Your task to perform on an android device: toggle priority inbox in the gmail app Image 0: 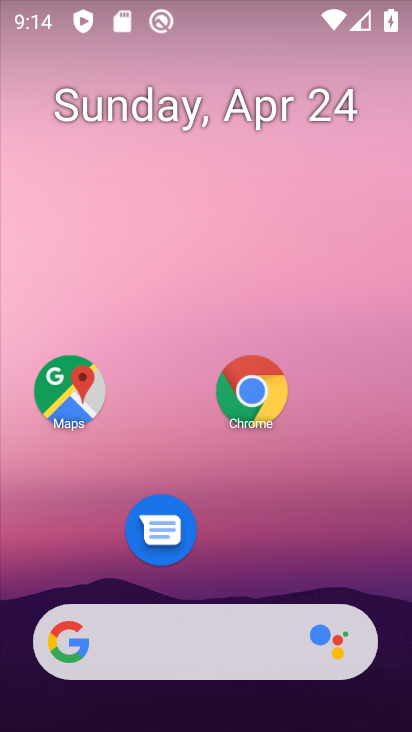
Step 0: drag from (256, 551) to (299, 33)
Your task to perform on an android device: toggle priority inbox in the gmail app Image 1: 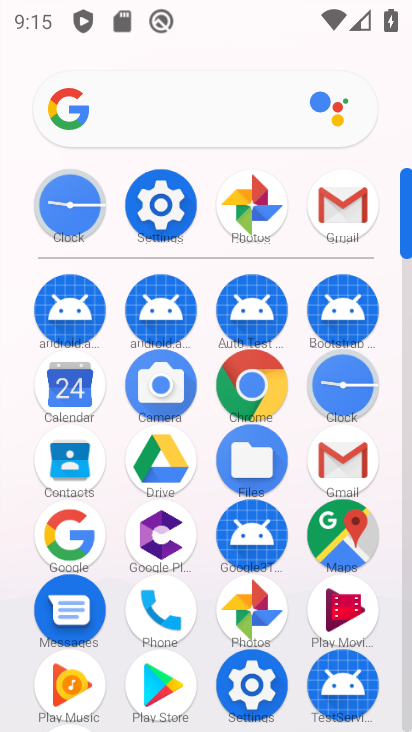
Step 1: click (342, 476)
Your task to perform on an android device: toggle priority inbox in the gmail app Image 2: 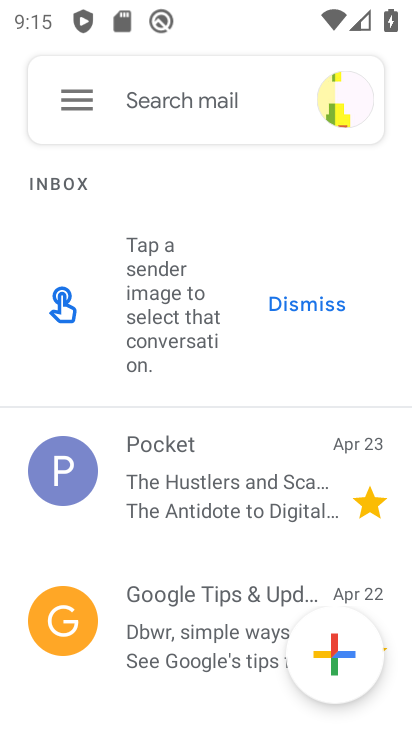
Step 2: drag from (168, 575) to (219, 234)
Your task to perform on an android device: toggle priority inbox in the gmail app Image 3: 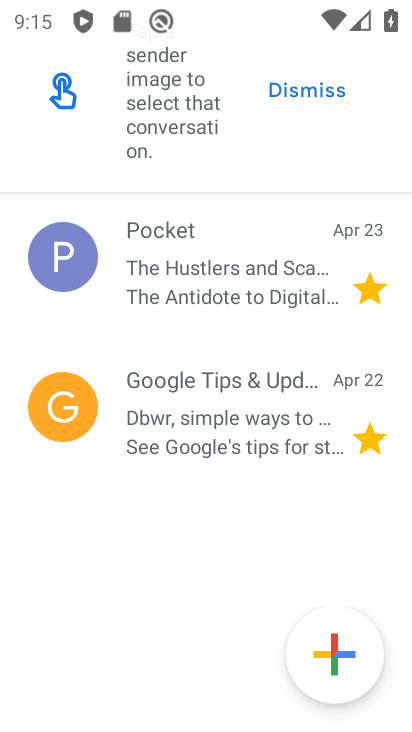
Step 3: drag from (219, 234) to (268, 625)
Your task to perform on an android device: toggle priority inbox in the gmail app Image 4: 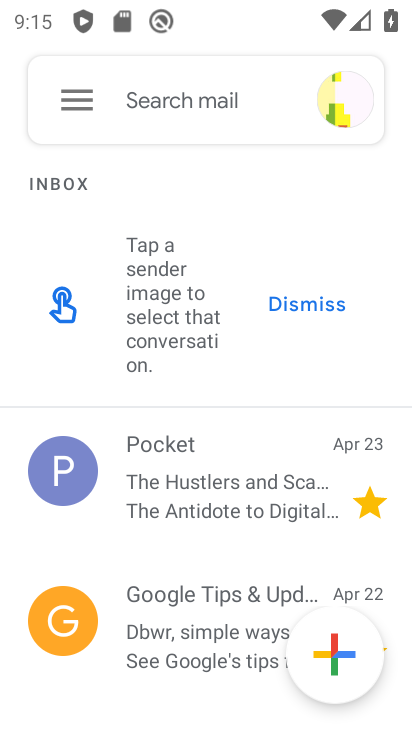
Step 4: click (73, 89)
Your task to perform on an android device: toggle priority inbox in the gmail app Image 5: 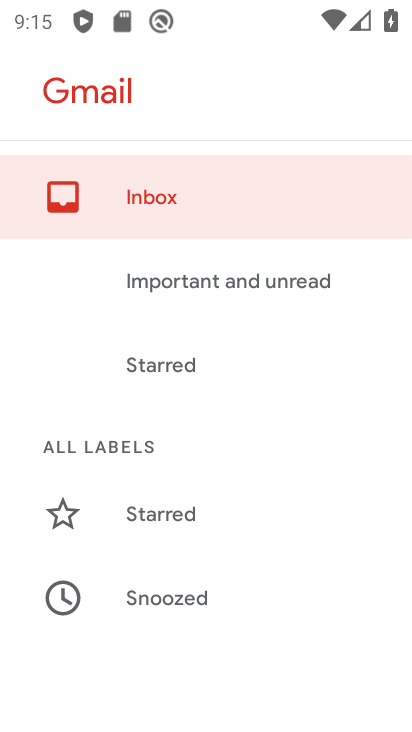
Step 5: drag from (130, 498) to (179, 85)
Your task to perform on an android device: toggle priority inbox in the gmail app Image 6: 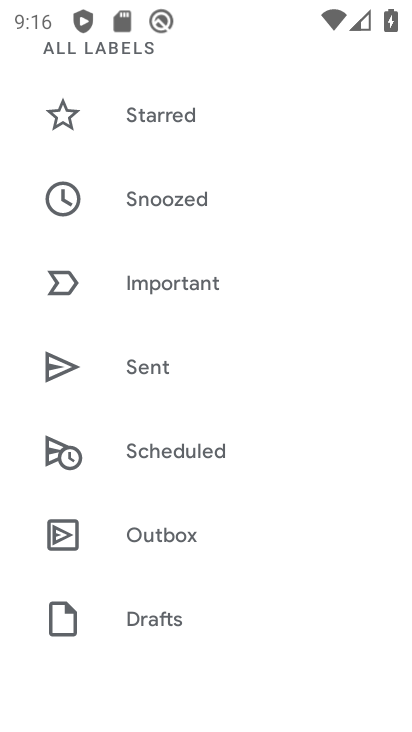
Step 6: drag from (106, 573) to (192, 110)
Your task to perform on an android device: toggle priority inbox in the gmail app Image 7: 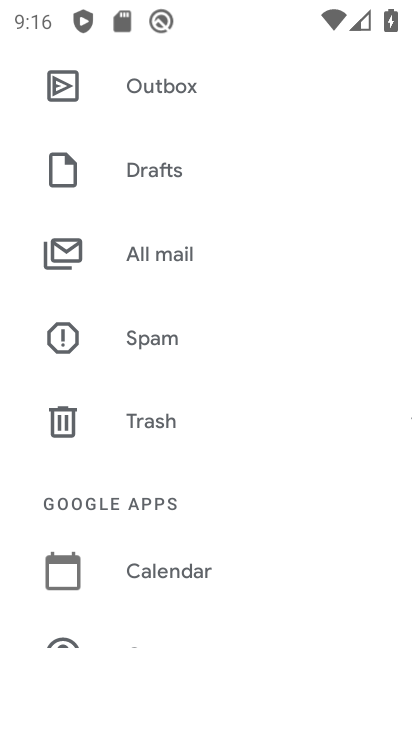
Step 7: drag from (139, 582) to (234, 181)
Your task to perform on an android device: toggle priority inbox in the gmail app Image 8: 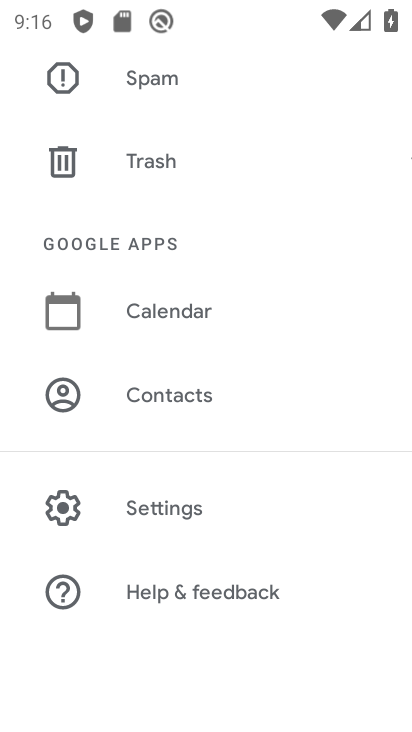
Step 8: click (175, 513)
Your task to perform on an android device: toggle priority inbox in the gmail app Image 9: 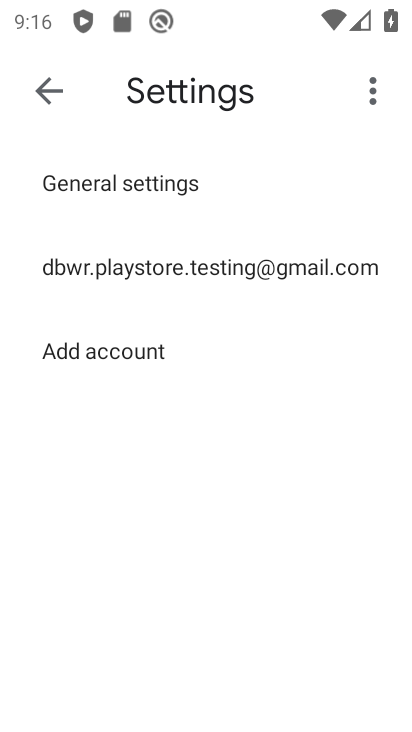
Step 9: click (211, 261)
Your task to perform on an android device: toggle priority inbox in the gmail app Image 10: 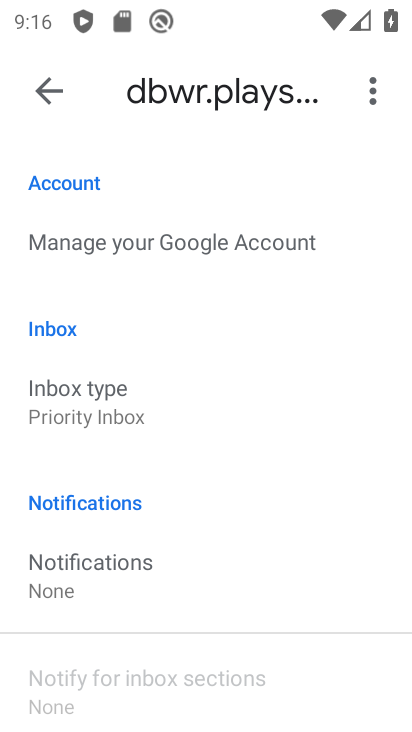
Step 10: click (158, 411)
Your task to perform on an android device: toggle priority inbox in the gmail app Image 11: 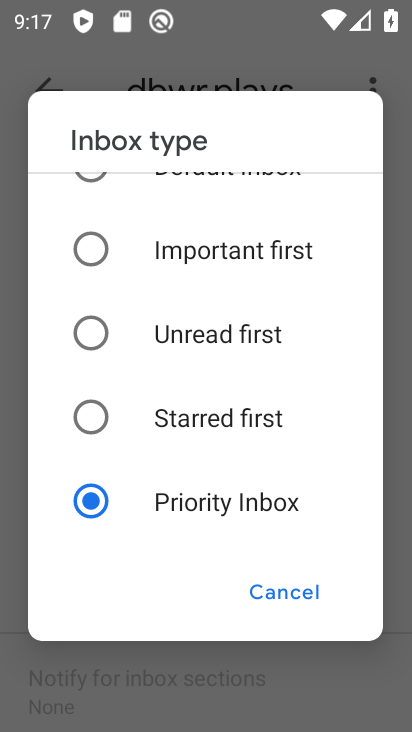
Step 11: click (103, 419)
Your task to perform on an android device: toggle priority inbox in the gmail app Image 12: 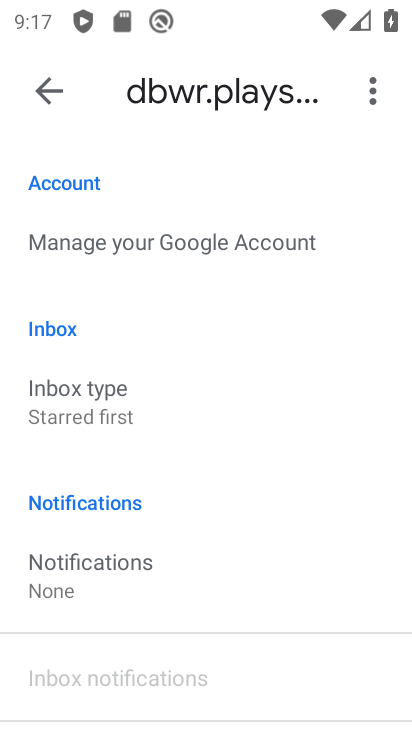
Step 12: task complete